Your task to perform on an android device: Search for seafood restaurants on Google Maps Image 0: 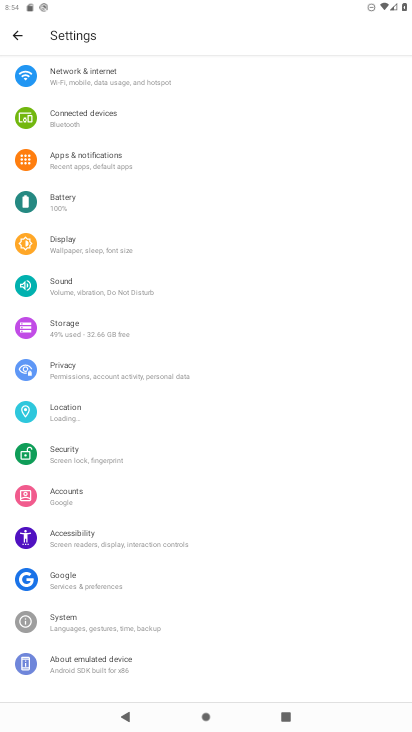
Step 0: press home button
Your task to perform on an android device: Search for seafood restaurants on Google Maps Image 1: 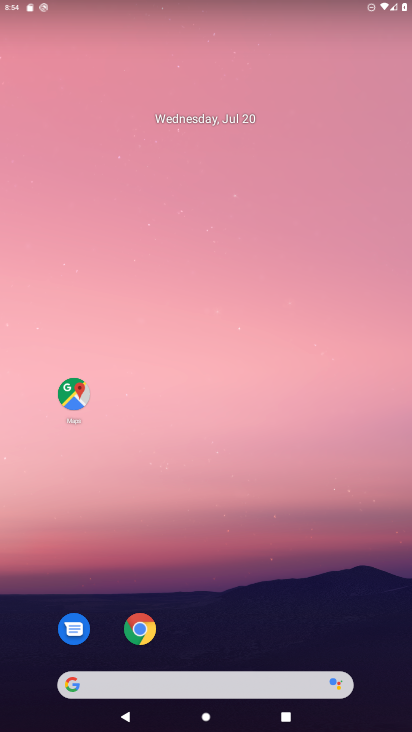
Step 1: click (72, 396)
Your task to perform on an android device: Search for seafood restaurants on Google Maps Image 2: 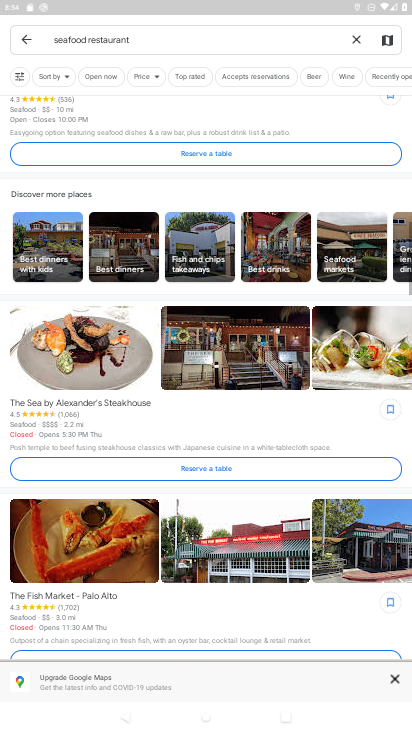
Step 2: click (356, 38)
Your task to perform on an android device: Search for seafood restaurants on Google Maps Image 3: 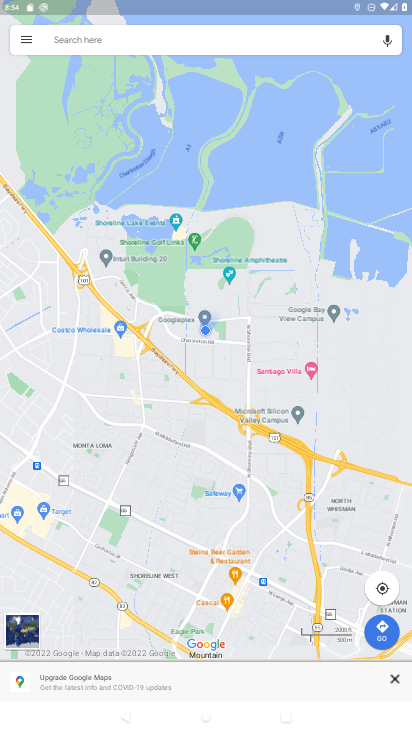
Step 3: click (83, 36)
Your task to perform on an android device: Search for seafood restaurants on Google Maps Image 4: 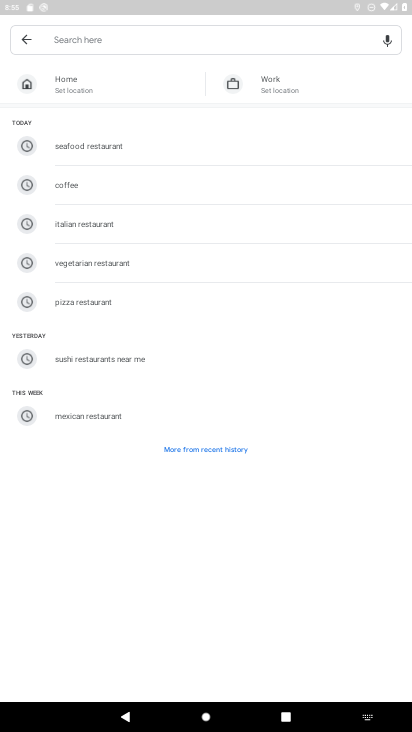
Step 4: type "seafood restaurants"
Your task to perform on an android device: Search for seafood restaurants on Google Maps Image 5: 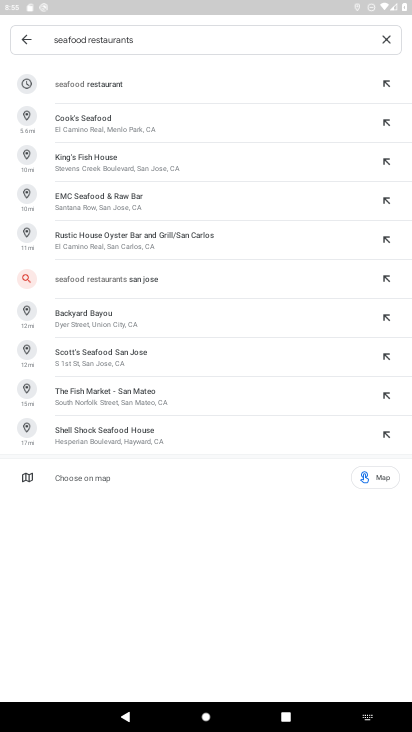
Step 5: click (105, 83)
Your task to perform on an android device: Search for seafood restaurants on Google Maps Image 6: 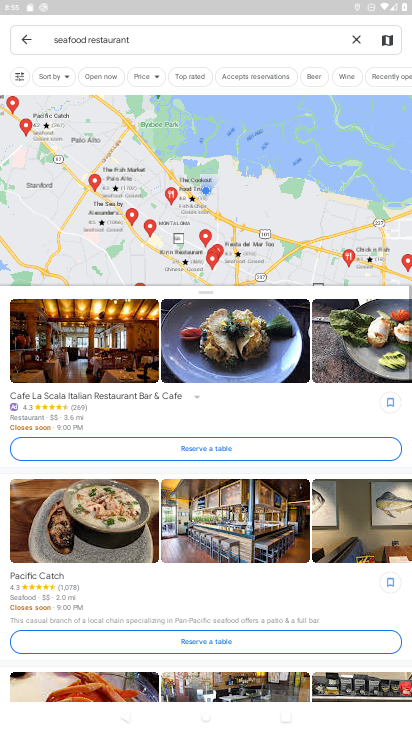
Step 6: task complete